Your task to perform on an android device: Open CNN.com Image 0: 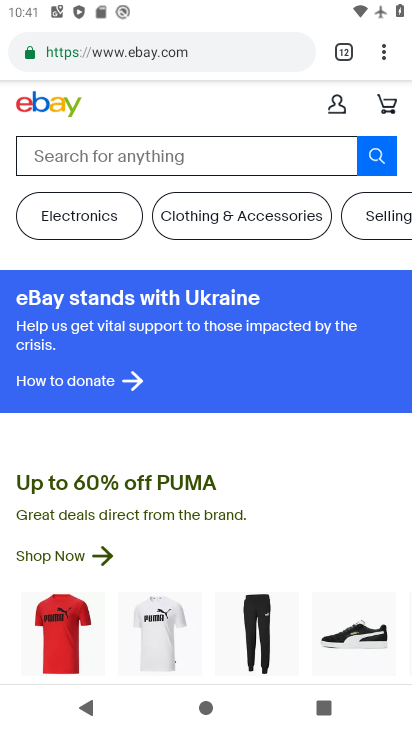
Step 0: press home button
Your task to perform on an android device: Open CNN.com Image 1: 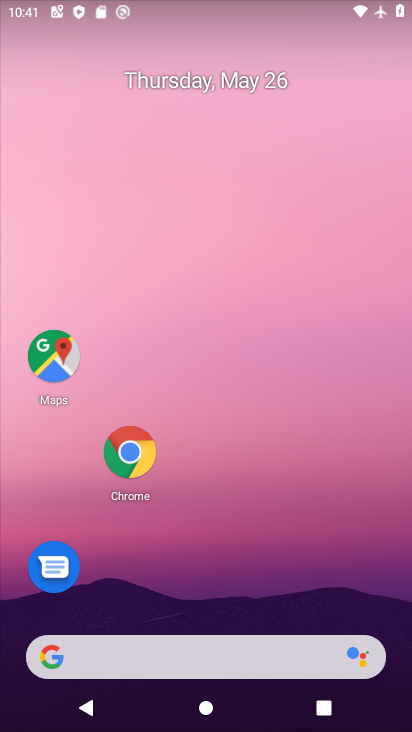
Step 1: click (126, 446)
Your task to perform on an android device: Open CNN.com Image 2: 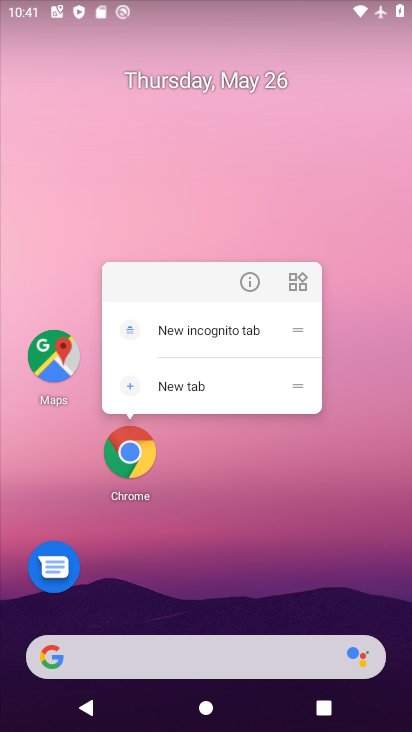
Step 2: click (119, 460)
Your task to perform on an android device: Open CNN.com Image 3: 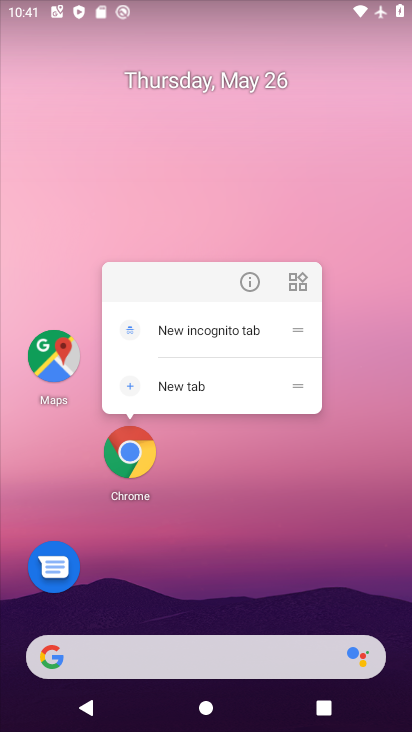
Step 3: click (136, 452)
Your task to perform on an android device: Open CNN.com Image 4: 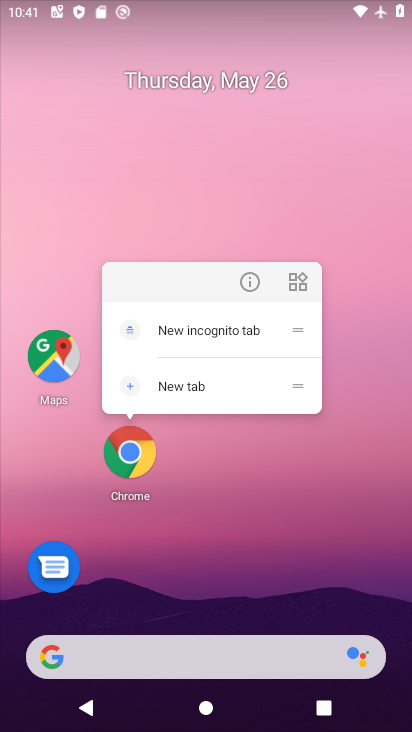
Step 4: click (131, 460)
Your task to perform on an android device: Open CNN.com Image 5: 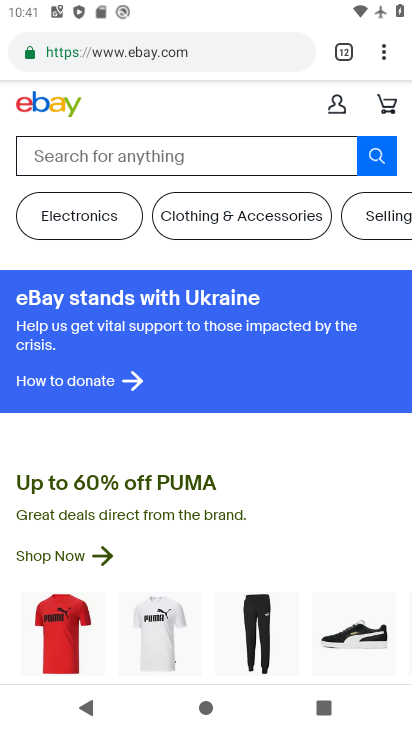
Step 5: drag from (381, 56) to (238, 101)
Your task to perform on an android device: Open CNN.com Image 6: 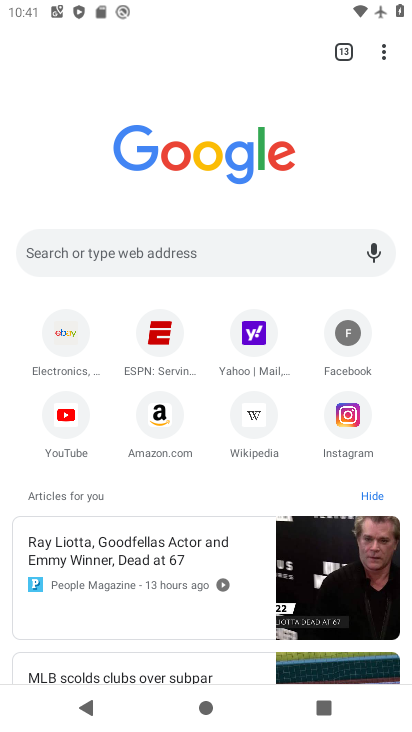
Step 6: click (128, 245)
Your task to perform on an android device: Open CNN.com Image 7: 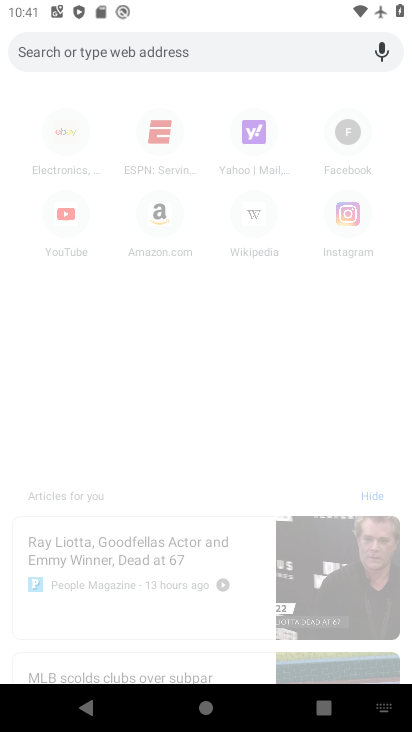
Step 7: type "cnn.com"
Your task to perform on an android device: Open CNN.com Image 8: 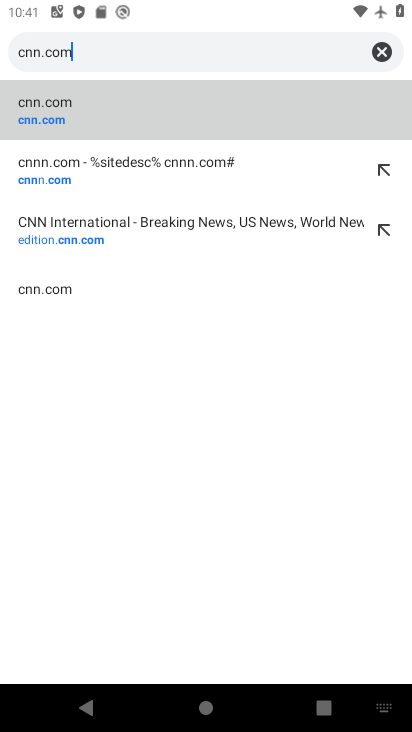
Step 8: click (120, 107)
Your task to perform on an android device: Open CNN.com Image 9: 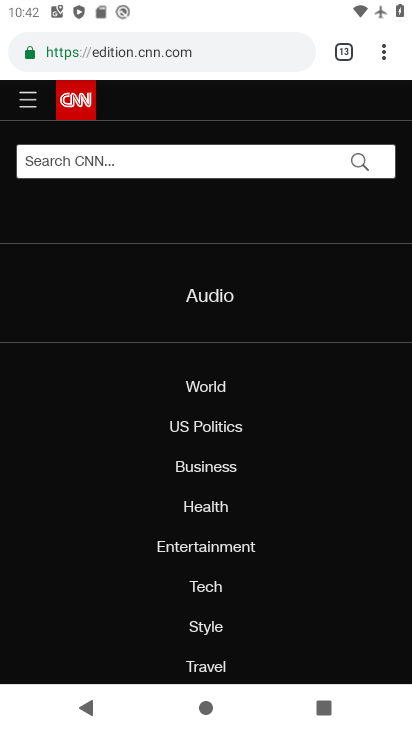
Step 9: task complete